Your task to perform on an android device: Open Yahoo.com Image 0: 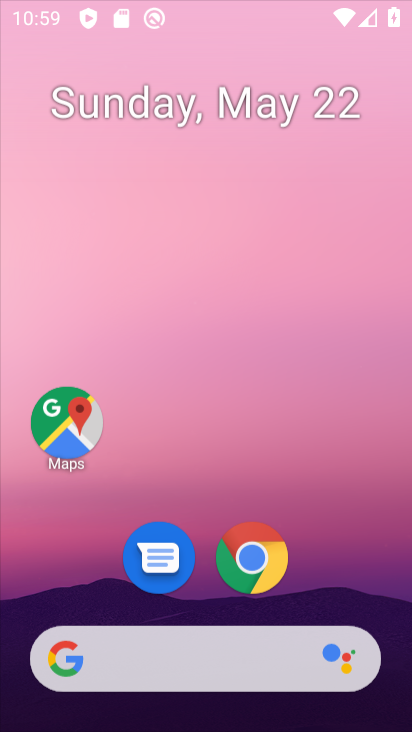
Step 0: drag from (152, 667) to (170, 169)
Your task to perform on an android device: Open Yahoo.com Image 1: 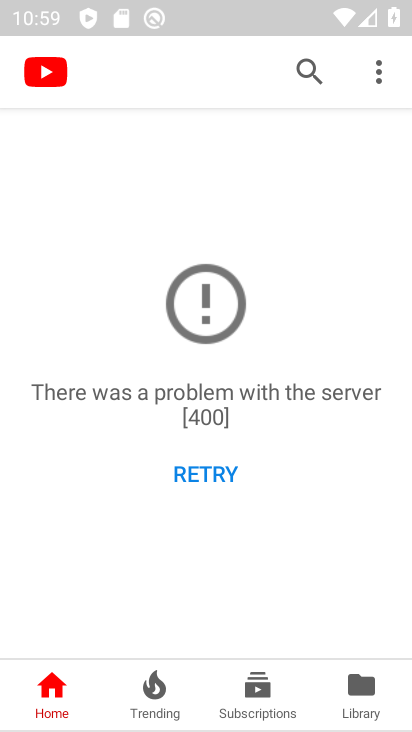
Step 1: press back button
Your task to perform on an android device: Open Yahoo.com Image 2: 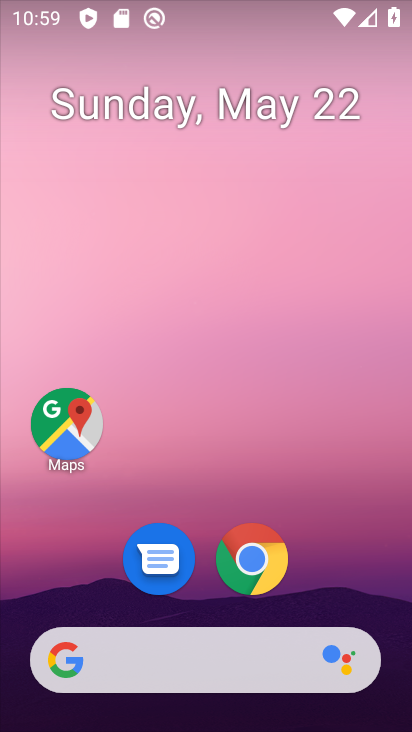
Step 2: drag from (248, 561) to (285, 561)
Your task to perform on an android device: Open Yahoo.com Image 3: 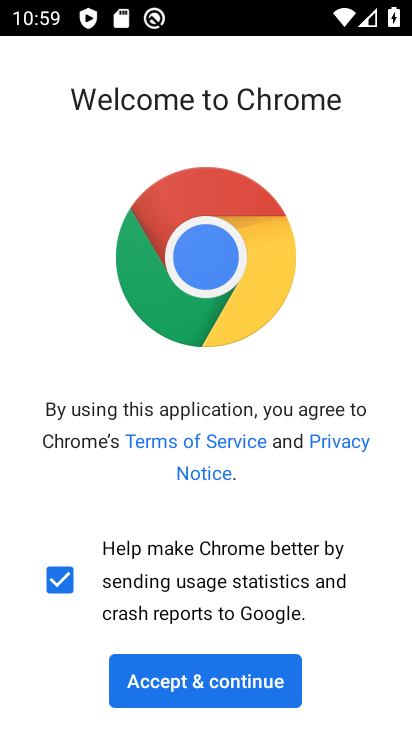
Step 3: click (196, 687)
Your task to perform on an android device: Open Yahoo.com Image 4: 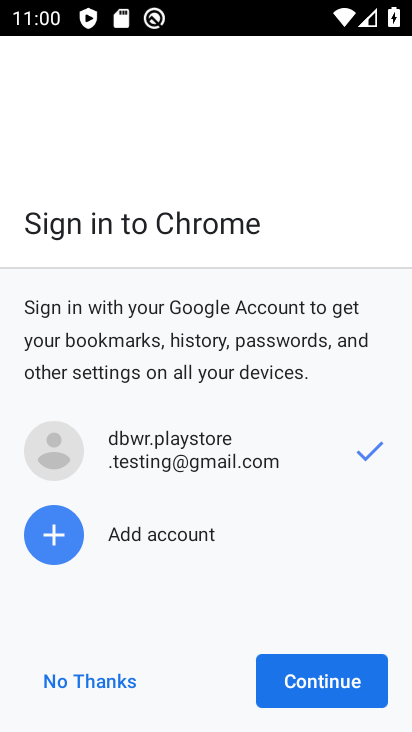
Step 4: click (313, 693)
Your task to perform on an android device: Open Yahoo.com Image 5: 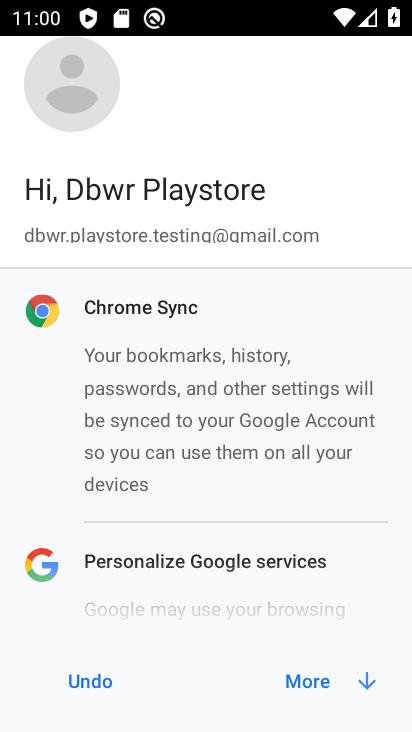
Step 5: click (307, 688)
Your task to perform on an android device: Open Yahoo.com Image 6: 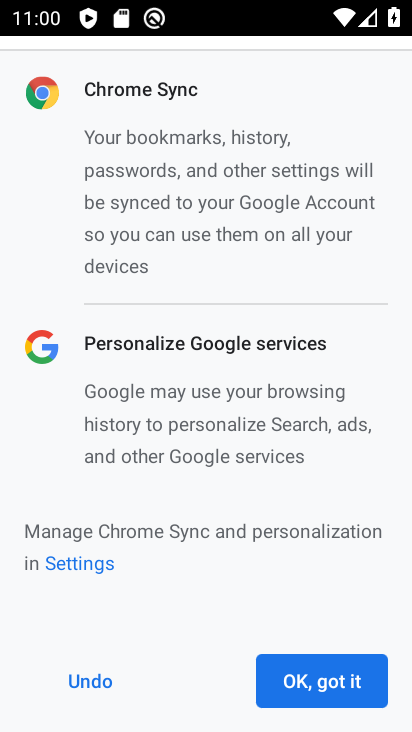
Step 6: click (314, 682)
Your task to perform on an android device: Open Yahoo.com Image 7: 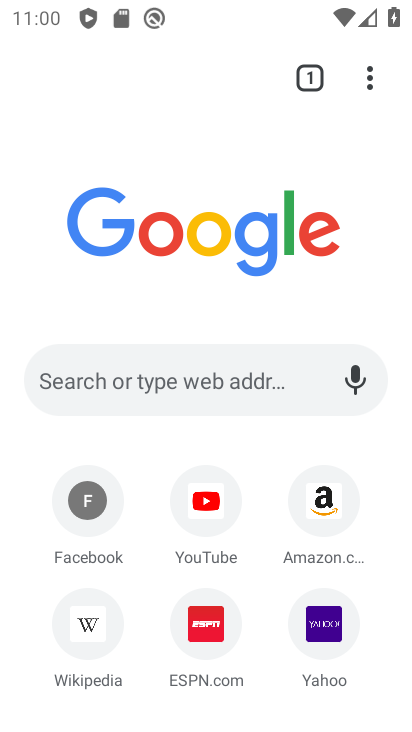
Step 7: click (315, 629)
Your task to perform on an android device: Open Yahoo.com Image 8: 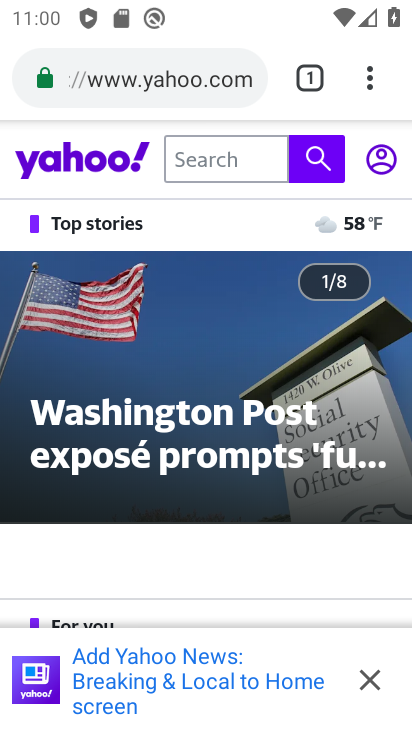
Step 8: task complete